Your task to perform on an android device: turn off sleep mode Image 0: 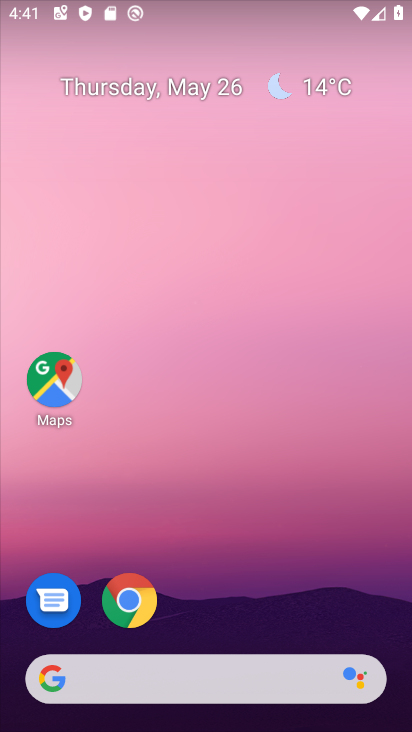
Step 0: drag from (232, 617) to (209, 118)
Your task to perform on an android device: turn off sleep mode Image 1: 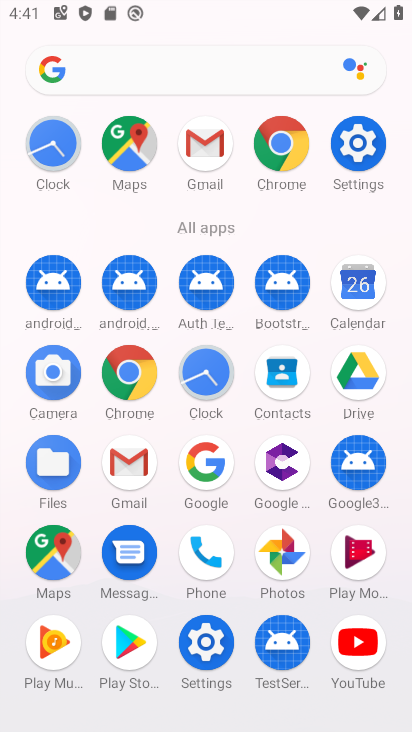
Step 1: click (376, 156)
Your task to perform on an android device: turn off sleep mode Image 2: 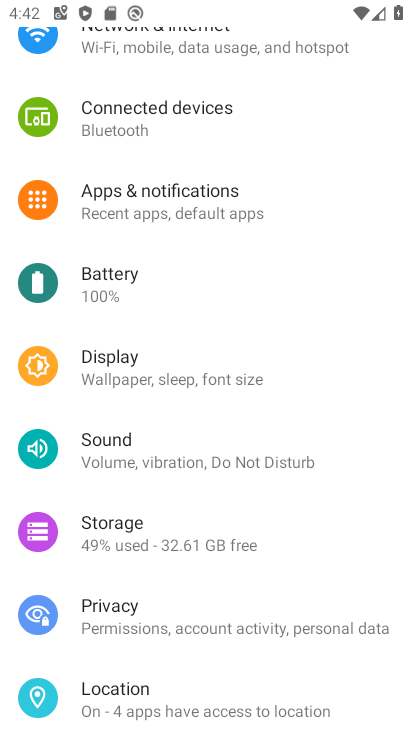
Step 2: task complete